Your task to perform on an android device: Open Google Maps and go to "Timeline" Image 0: 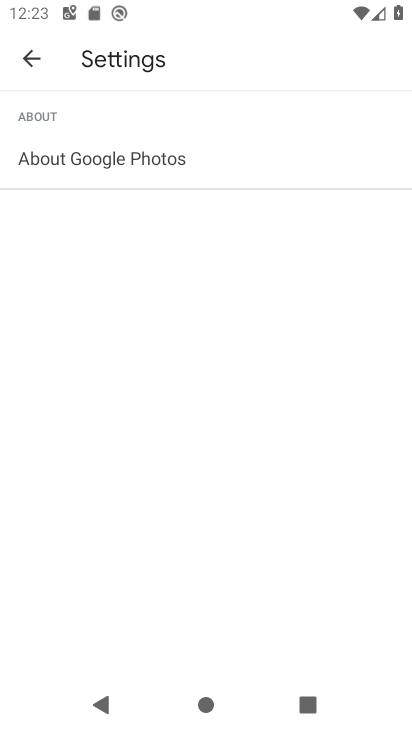
Step 0: press home button
Your task to perform on an android device: Open Google Maps and go to "Timeline" Image 1: 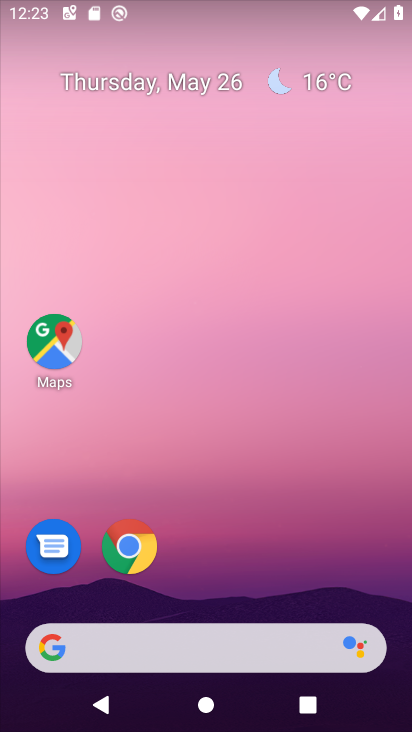
Step 1: click (58, 348)
Your task to perform on an android device: Open Google Maps and go to "Timeline" Image 2: 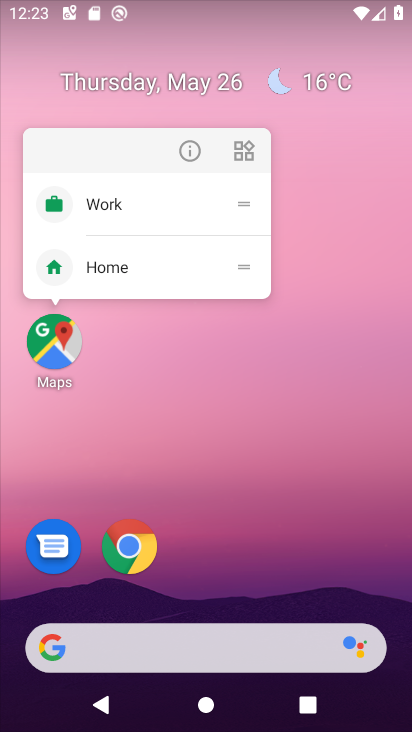
Step 2: click (55, 340)
Your task to perform on an android device: Open Google Maps and go to "Timeline" Image 3: 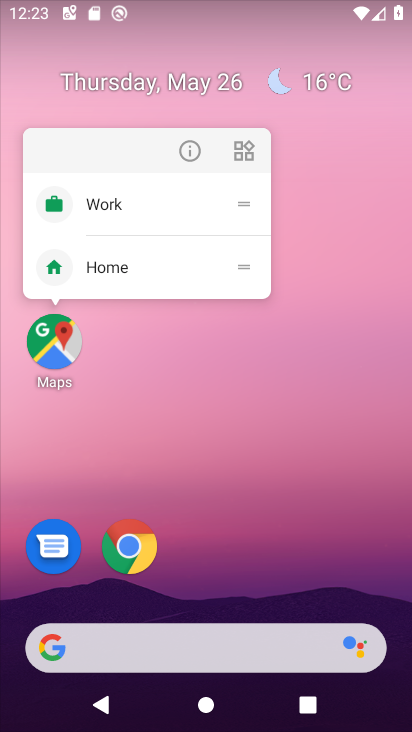
Step 3: click (50, 342)
Your task to perform on an android device: Open Google Maps and go to "Timeline" Image 4: 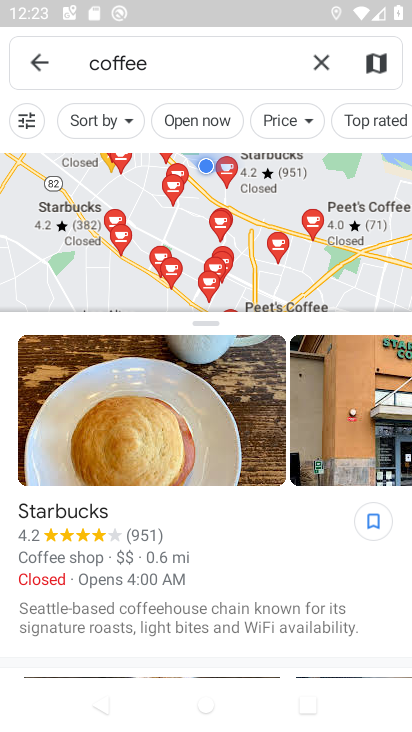
Step 4: click (38, 64)
Your task to perform on an android device: Open Google Maps and go to "Timeline" Image 5: 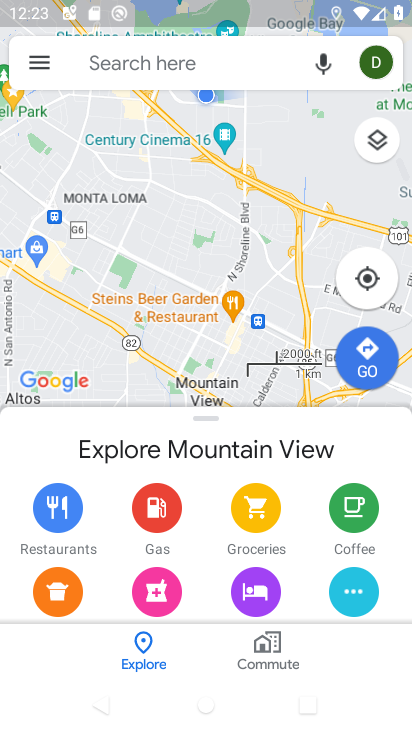
Step 5: click (38, 64)
Your task to perform on an android device: Open Google Maps and go to "Timeline" Image 6: 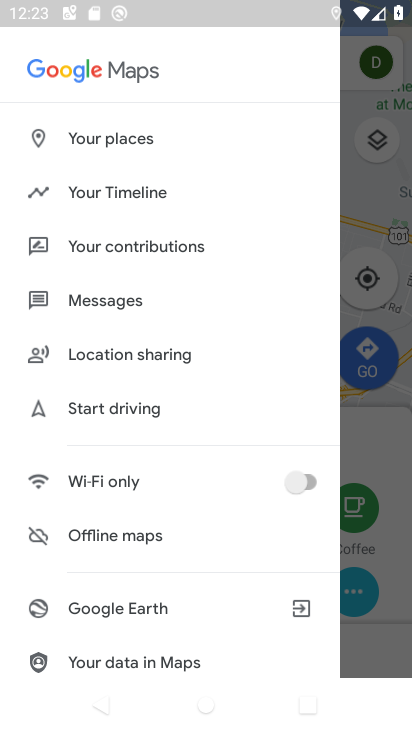
Step 6: click (129, 199)
Your task to perform on an android device: Open Google Maps and go to "Timeline" Image 7: 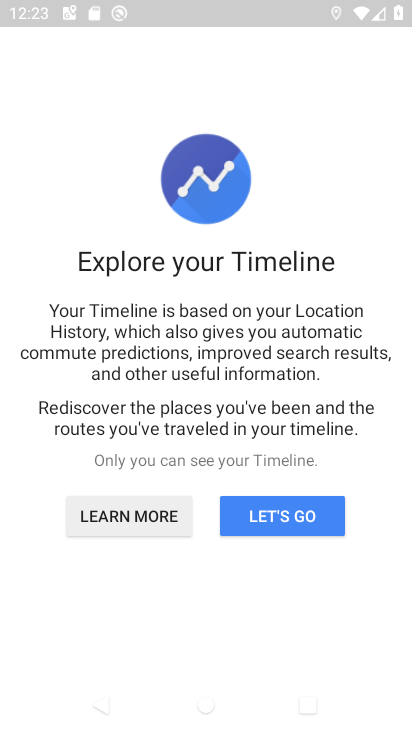
Step 7: click (288, 523)
Your task to perform on an android device: Open Google Maps and go to "Timeline" Image 8: 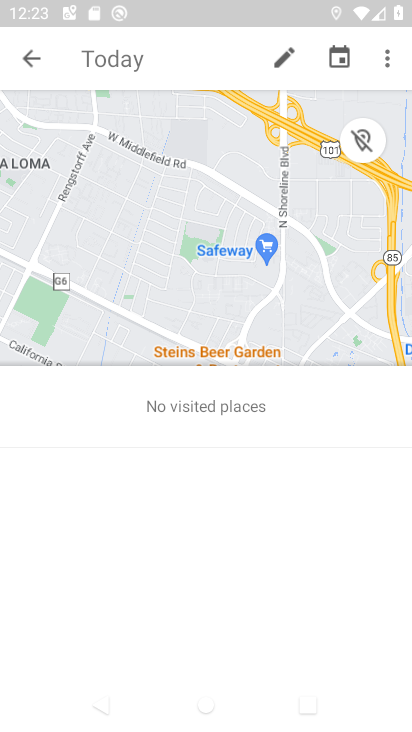
Step 8: task complete